Your task to perform on an android device: toggle show notifications on the lock screen Image 0: 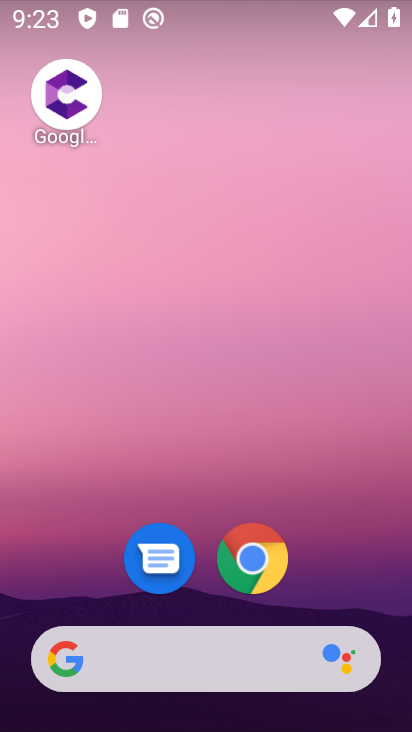
Step 0: drag from (192, 572) to (7, 68)
Your task to perform on an android device: toggle show notifications on the lock screen Image 1: 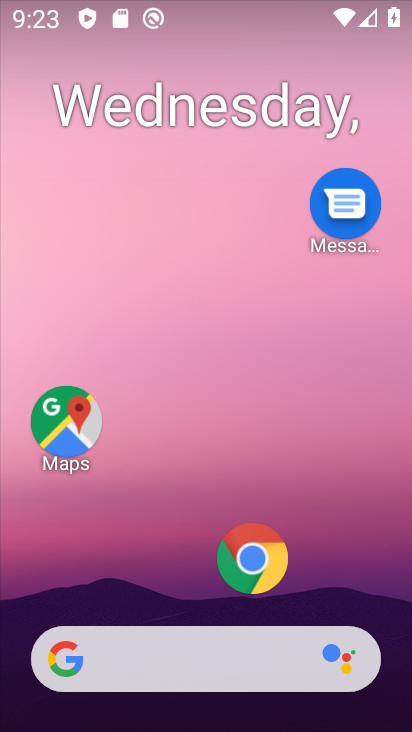
Step 1: drag from (160, 567) to (163, 5)
Your task to perform on an android device: toggle show notifications on the lock screen Image 2: 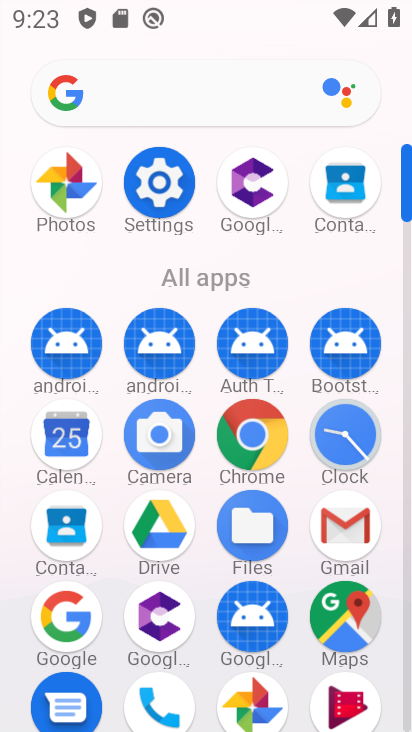
Step 2: click (137, 197)
Your task to perform on an android device: toggle show notifications on the lock screen Image 3: 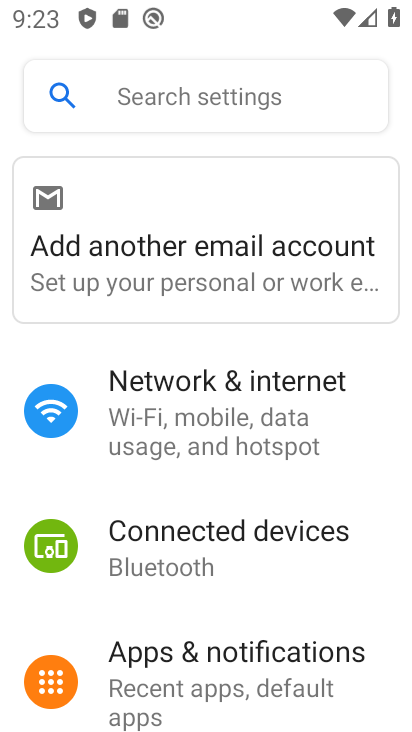
Step 3: click (192, 658)
Your task to perform on an android device: toggle show notifications on the lock screen Image 4: 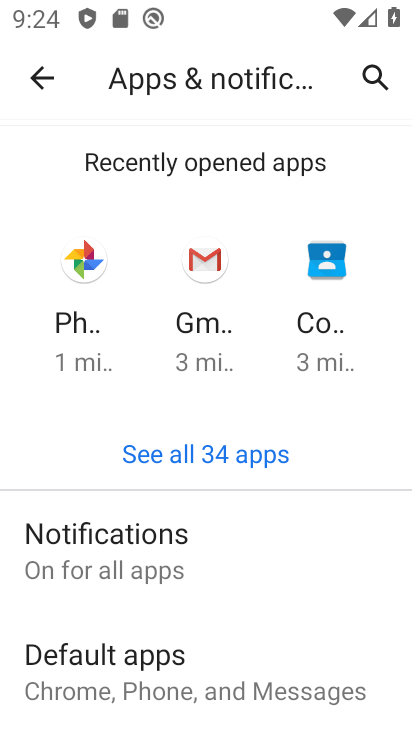
Step 4: click (174, 553)
Your task to perform on an android device: toggle show notifications on the lock screen Image 5: 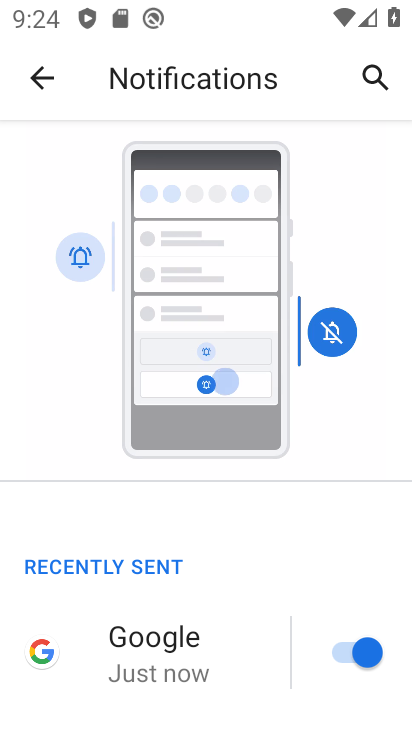
Step 5: drag from (188, 616) to (148, 1)
Your task to perform on an android device: toggle show notifications on the lock screen Image 6: 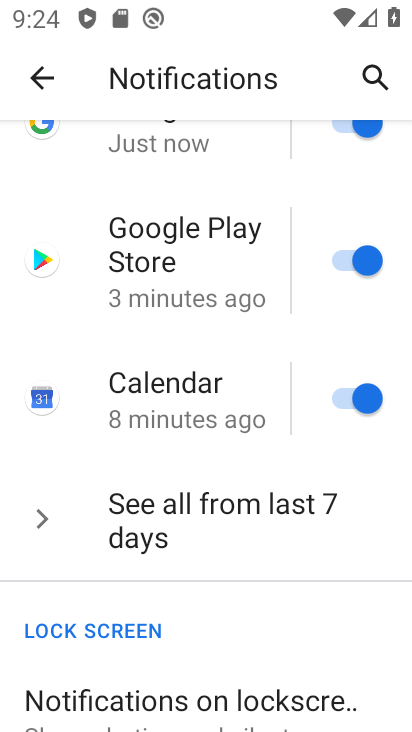
Step 6: drag from (175, 620) to (170, 5)
Your task to perform on an android device: toggle show notifications on the lock screen Image 7: 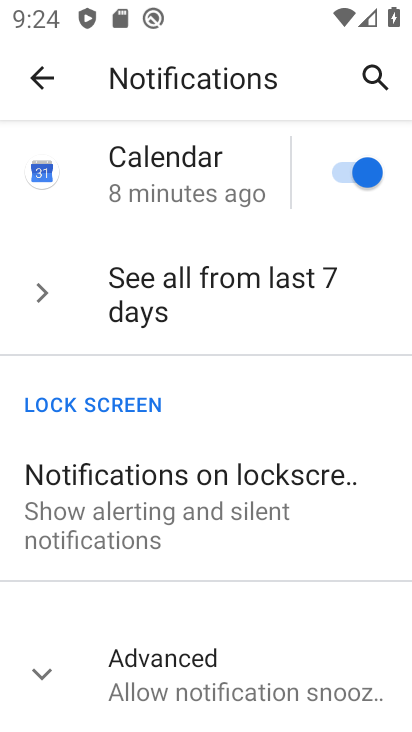
Step 7: click (236, 529)
Your task to perform on an android device: toggle show notifications on the lock screen Image 8: 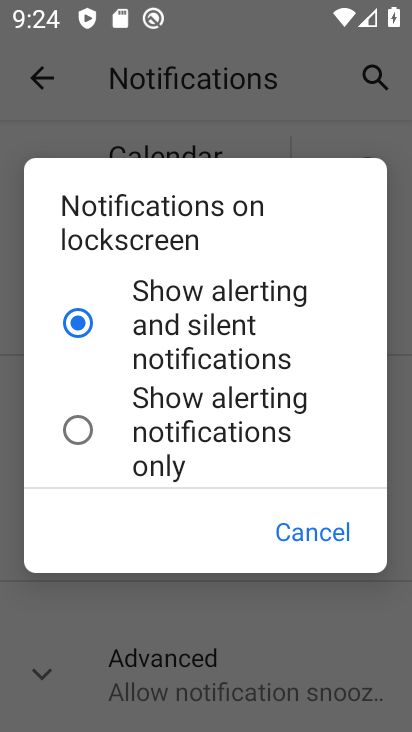
Step 8: drag from (206, 439) to (43, 29)
Your task to perform on an android device: toggle show notifications on the lock screen Image 9: 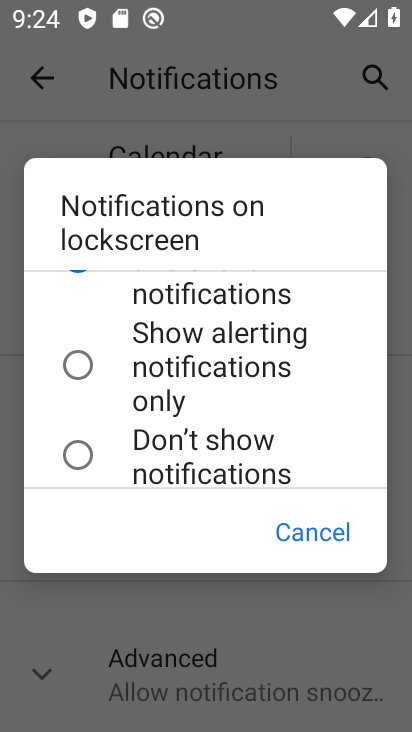
Step 9: click (169, 444)
Your task to perform on an android device: toggle show notifications on the lock screen Image 10: 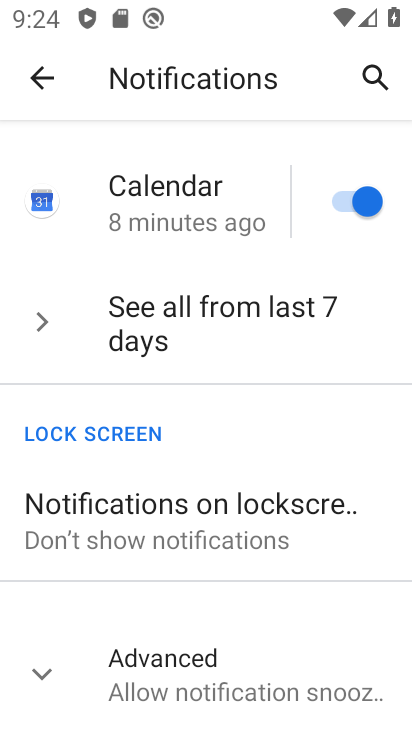
Step 10: task complete